Your task to perform on an android device: What is the recent news? Image 0: 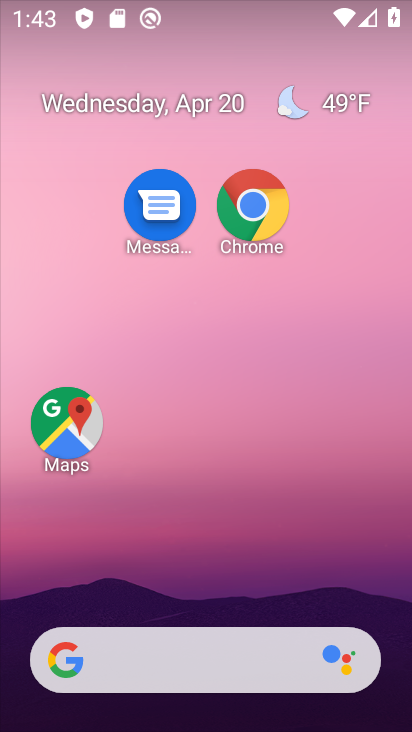
Step 0: click (175, 296)
Your task to perform on an android device: What is the recent news? Image 1: 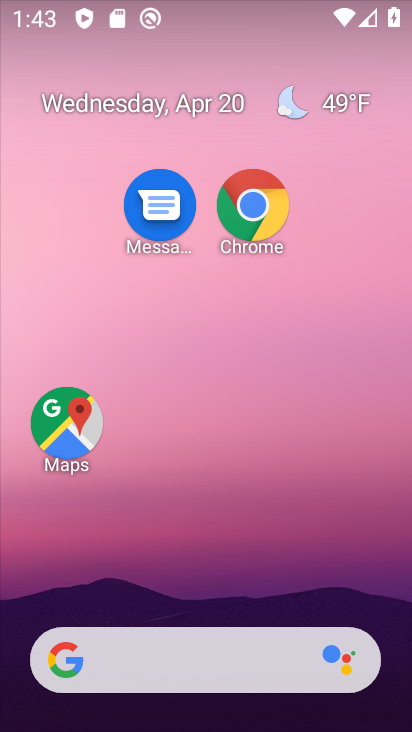
Step 1: drag from (179, 627) to (174, 227)
Your task to perform on an android device: What is the recent news? Image 2: 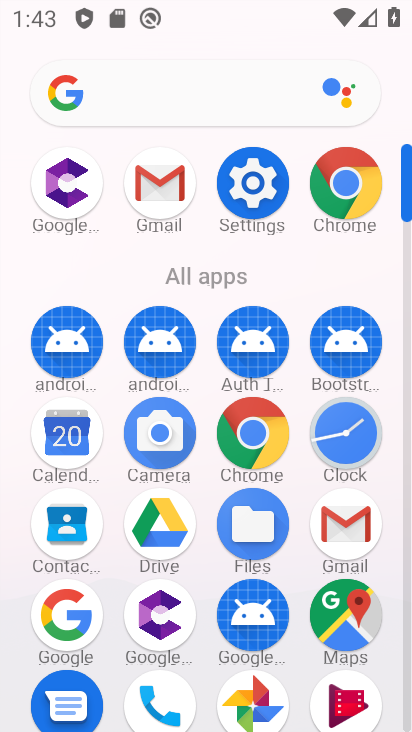
Step 2: drag from (216, 614) to (238, 241)
Your task to perform on an android device: What is the recent news? Image 3: 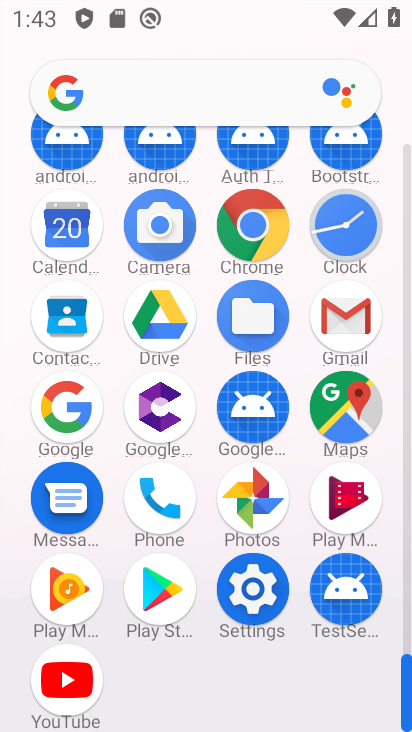
Step 3: click (77, 412)
Your task to perform on an android device: What is the recent news? Image 4: 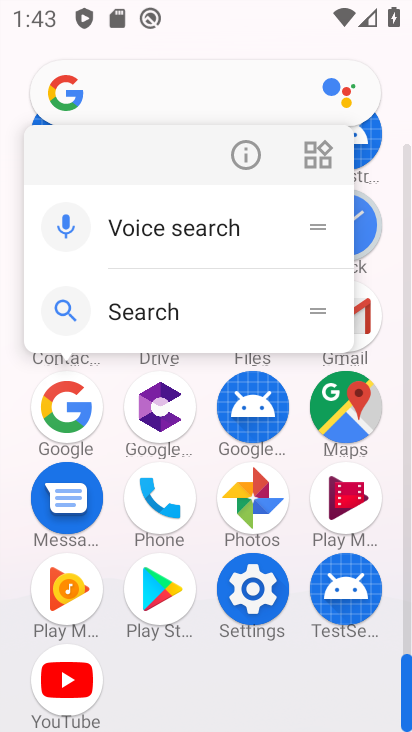
Step 4: click (68, 408)
Your task to perform on an android device: What is the recent news? Image 5: 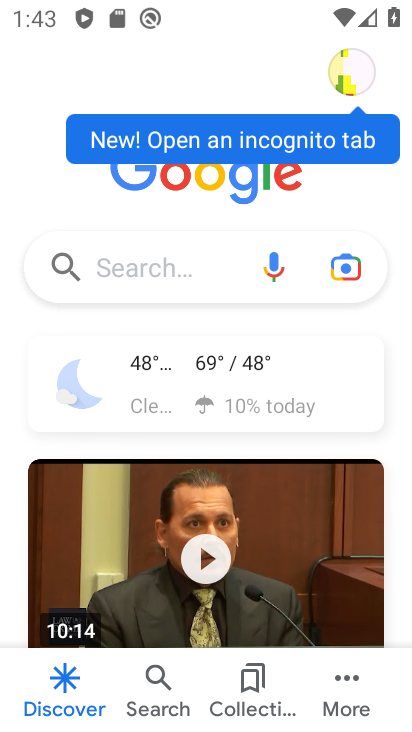
Step 5: click (171, 271)
Your task to perform on an android device: What is the recent news? Image 6: 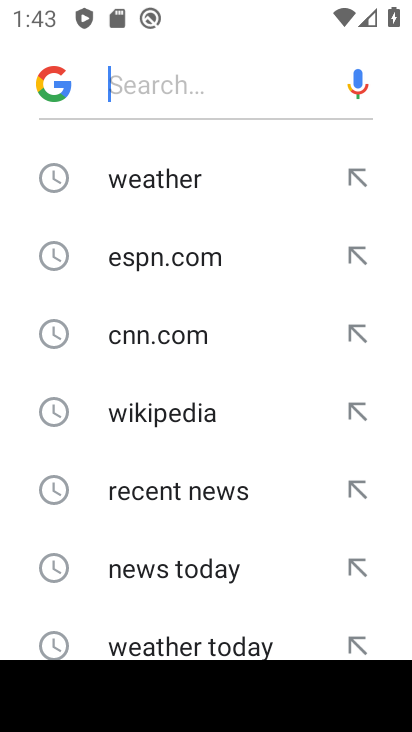
Step 6: click (156, 487)
Your task to perform on an android device: What is the recent news? Image 7: 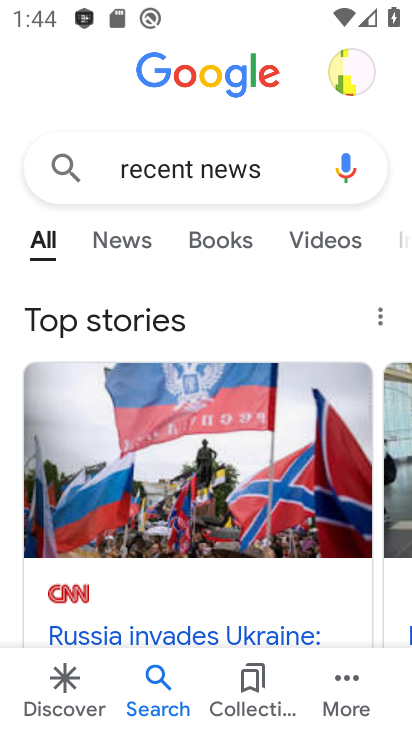
Step 7: task complete